Your task to perform on an android device: toggle airplane mode Image 0: 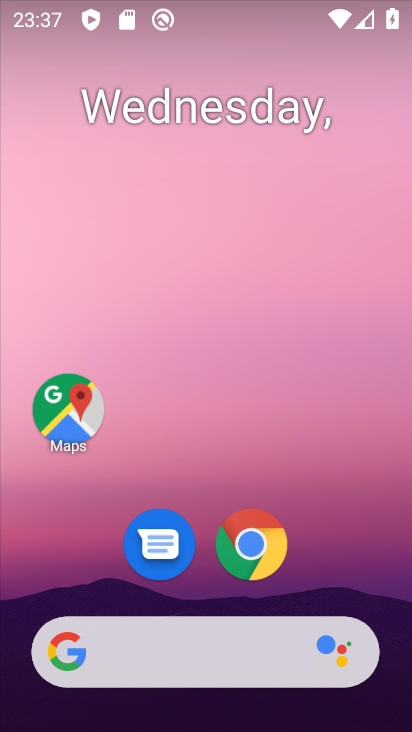
Step 0: drag from (321, 15) to (273, 541)
Your task to perform on an android device: toggle airplane mode Image 1: 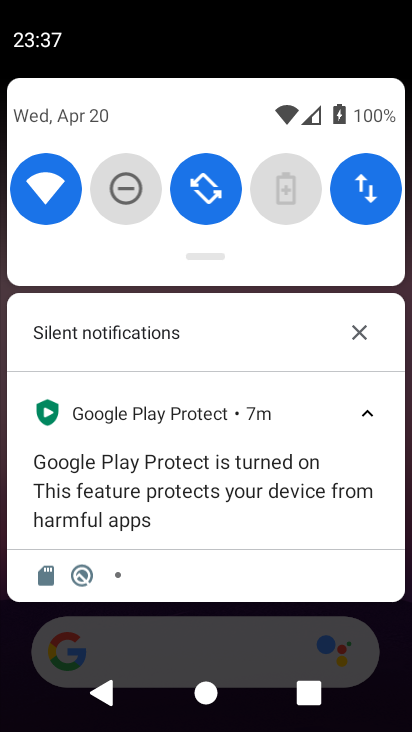
Step 1: drag from (217, 247) to (164, 675)
Your task to perform on an android device: toggle airplane mode Image 2: 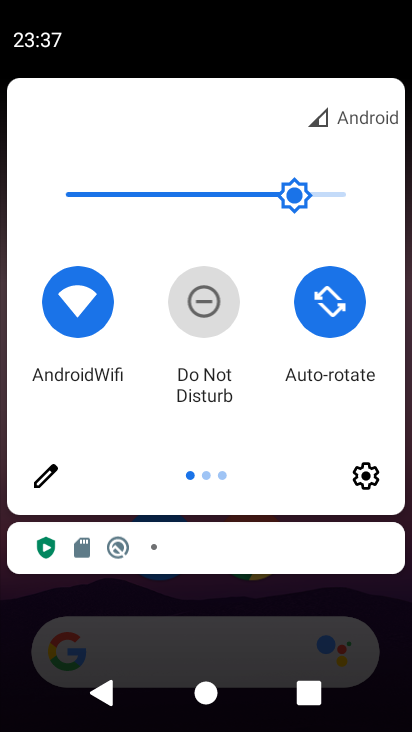
Step 2: drag from (388, 291) to (4, 364)
Your task to perform on an android device: toggle airplane mode Image 3: 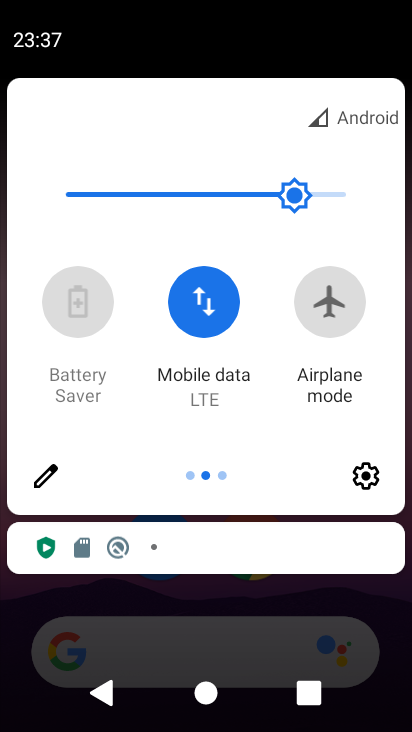
Step 3: click (326, 315)
Your task to perform on an android device: toggle airplane mode Image 4: 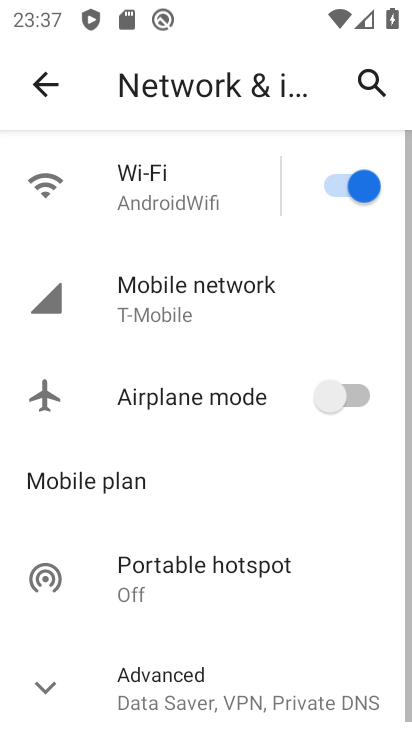
Step 4: task complete